Your task to perform on an android device: Find coffee shops on Maps Image 0: 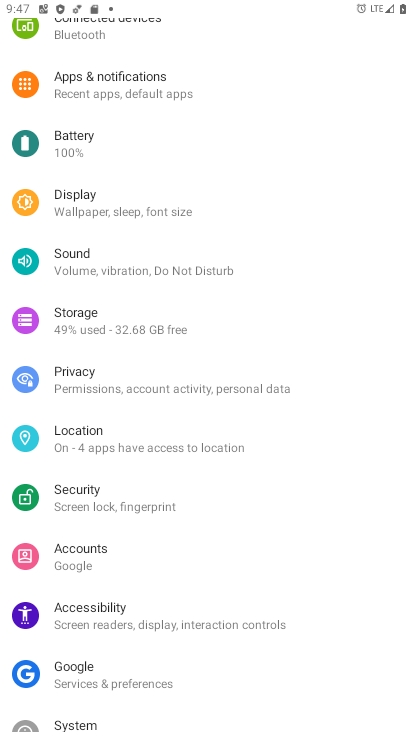
Step 0: press home button
Your task to perform on an android device: Find coffee shops on Maps Image 1: 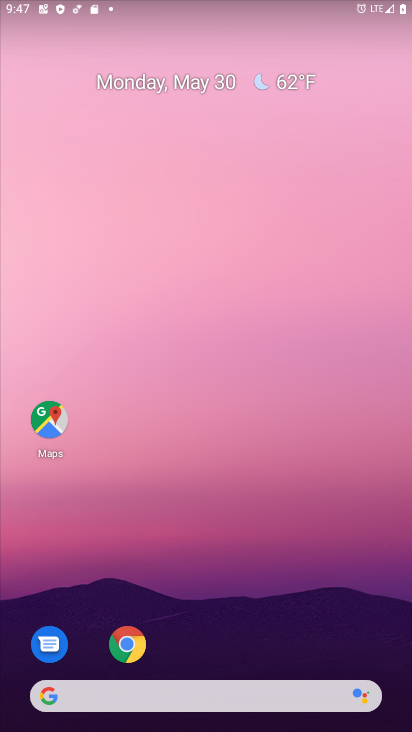
Step 1: click (50, 423)
Your task to perform on an android device: Find coffee shops on Maps Image 2: 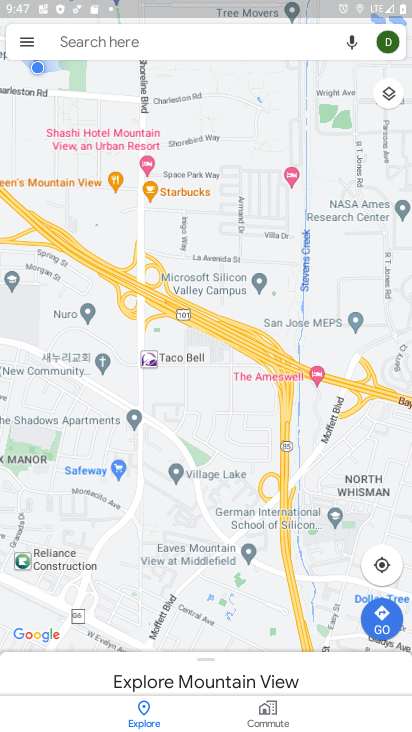
Step 2: click (125, 36)
Your task to perform on an android device: Find coffee shops on Maps Image 3: 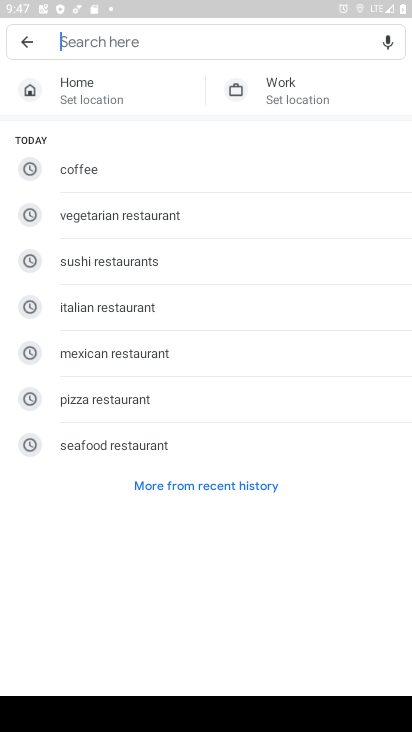
Step 3: type "coffee shop"
Your task to perform on an android device: Find coffee shops on Maps Image 4: 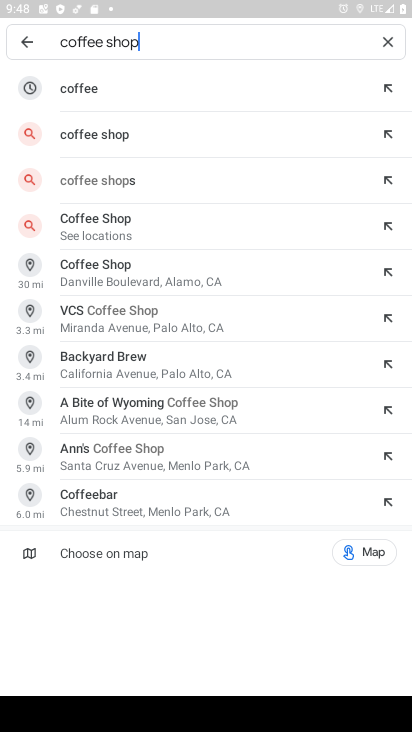
Step 4: click (112, 134)
Your task to perform on an android device: Find coffee shops on Maps Image 5: 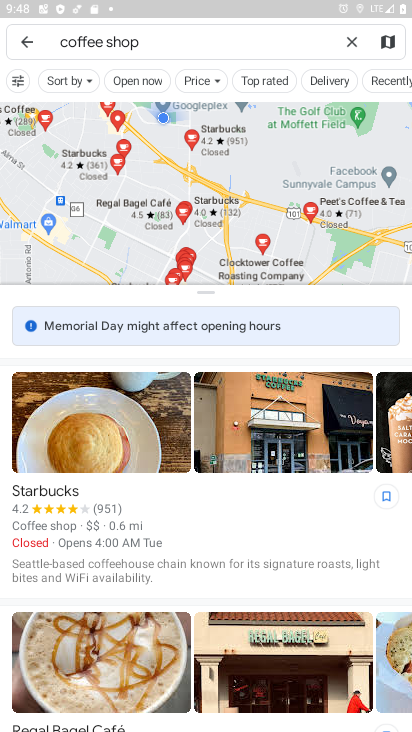
Step 5: task complete